Your task to perform on an android device: Look up the best rated 3d printer on Ali Express Image 0: 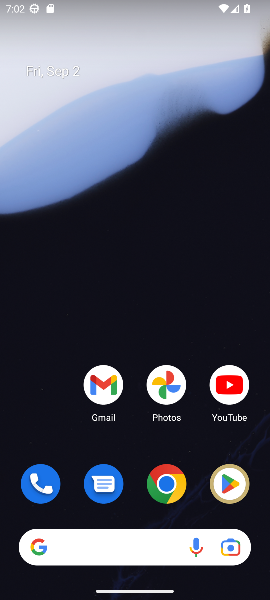
Step 0: click (165, 487)
Your task to perform on an android device: Look up the best rated 3d printer on Ali Express Image 1: 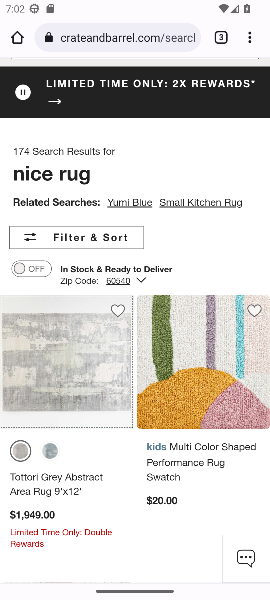
Step 1: click (175, 30)
Your task to perform on an android device: Look up the best rated 3d printer on Ali Express Image 2: 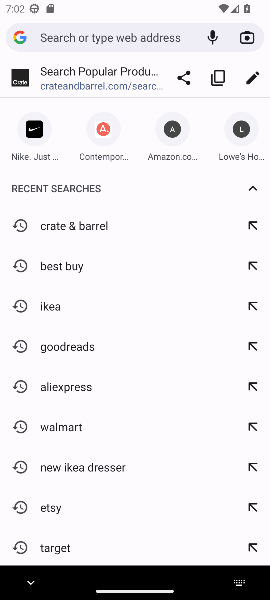
Step 2: type "Ali Express"
Your task to perform on an android device: Look up the best rated 3d printer on Ali Express Image 3: 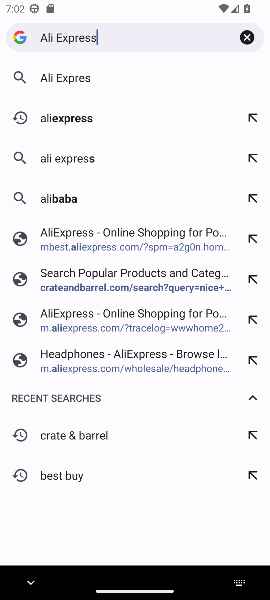
Step 3: press enter
Your task to perform on an android device: Look up the best rated 3d printer on Ali Express Image 4: 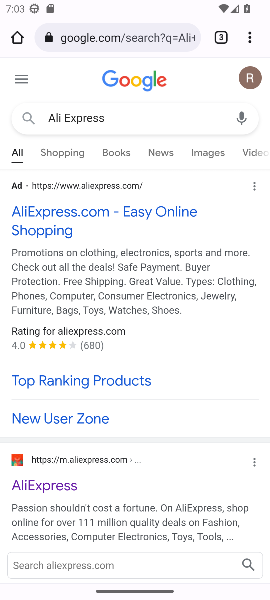
Step 4: click (49, 487)
Your task to perform on an android device: Look up the best rated 3d printer on Ali Express Image 5: 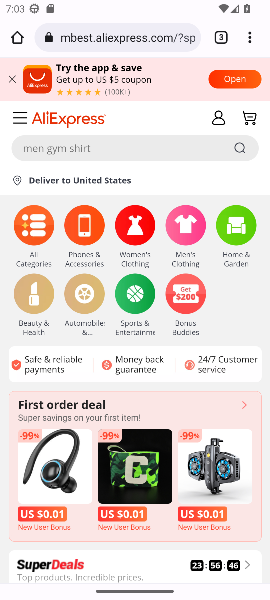
Step 5: click (103, 147)
Your task to perform on an android device: Look up the best rated 3d printer on Ali Express Image 6: 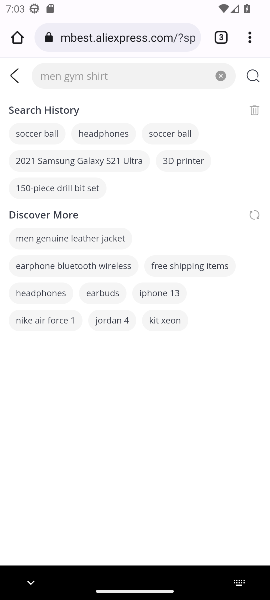
Step 6: type " 3d printer"
Your task to perform on an android device: Look up the best rated 3d printer on Ali Express Image 7: 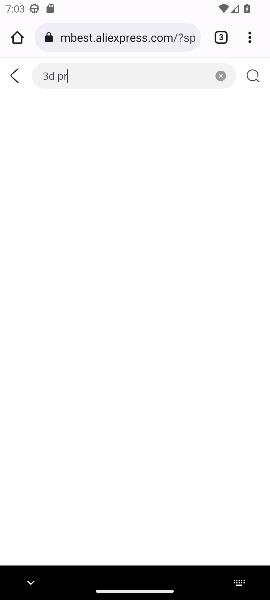
Step 7: press enter
Your task to perform on an android device: Look up the best rated 3d printer on Ali Express Image 8: 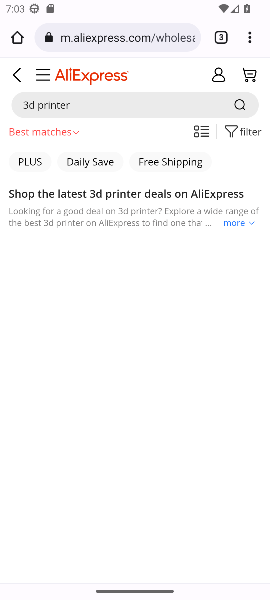
Step 8: click (236, 104)
Your task to perform on an android device: Look up the best rated 3d printer on Ali Express Image 9: 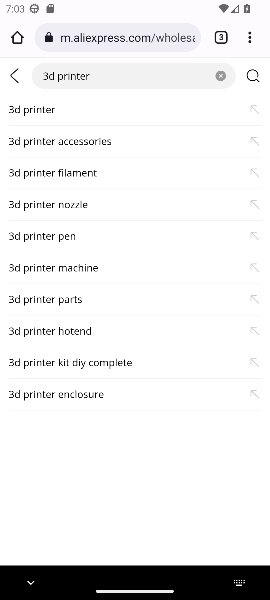
Step 9: click (35, 111)
Your task to perform on an android device: Look up the best rated 3d printer on Ali Express Image 10: 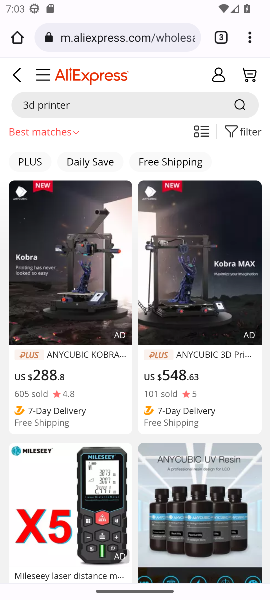
Step 10: drag from (148, 363) to (213, 131)
Your task to perform on an android device: Look up the best rated 3d printer on Ali Express Image 11: 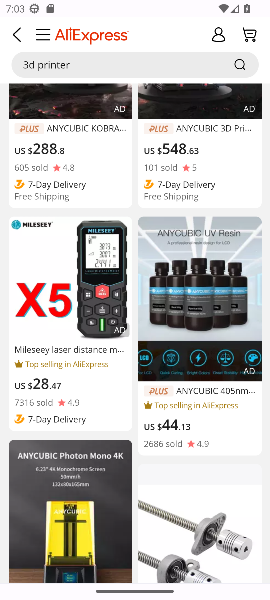
Step 11: click (236, 174)
Your task to perform on an android device: Look up the best rated 3d printer on Ali Express Image 12: 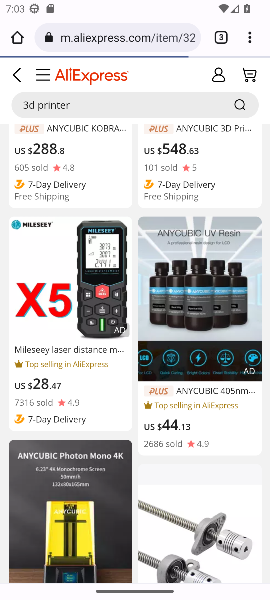
Step 12: task complete